Your task to perform on an android device: Go to display settings Image 0: 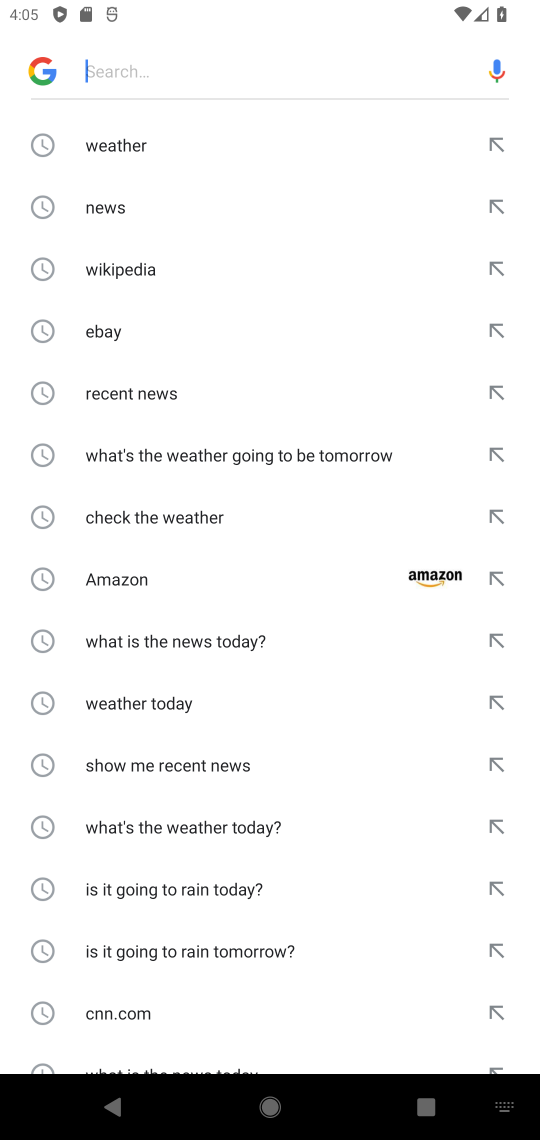
Step 0: press home button
Your task to perform on an android device: Go to display settings Image 1: 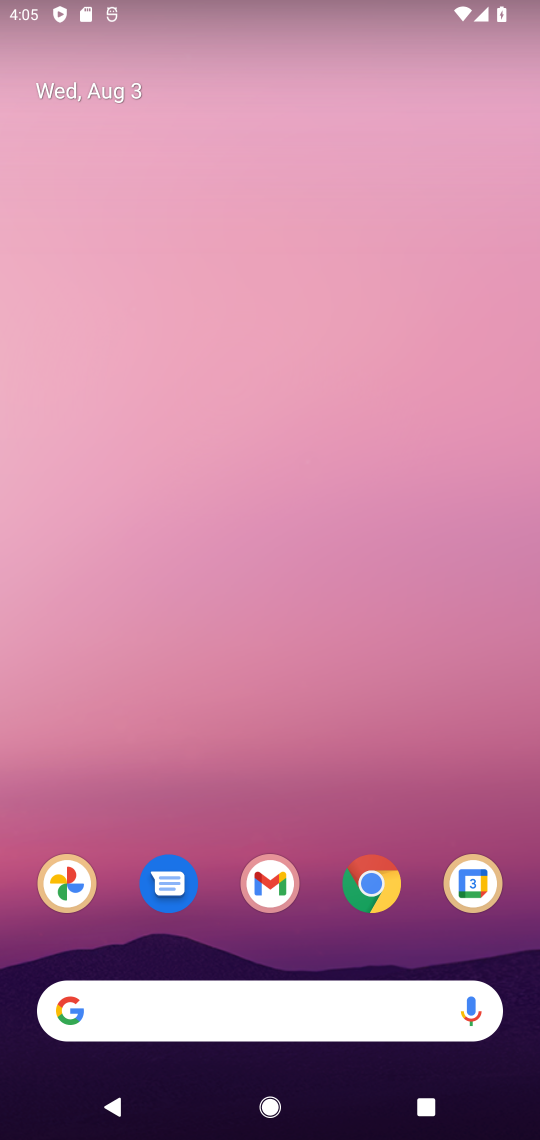
Step 1: drag from (224, 942) to (392, 9)
Your task to perform on an android device: Go to display settings Image 2: 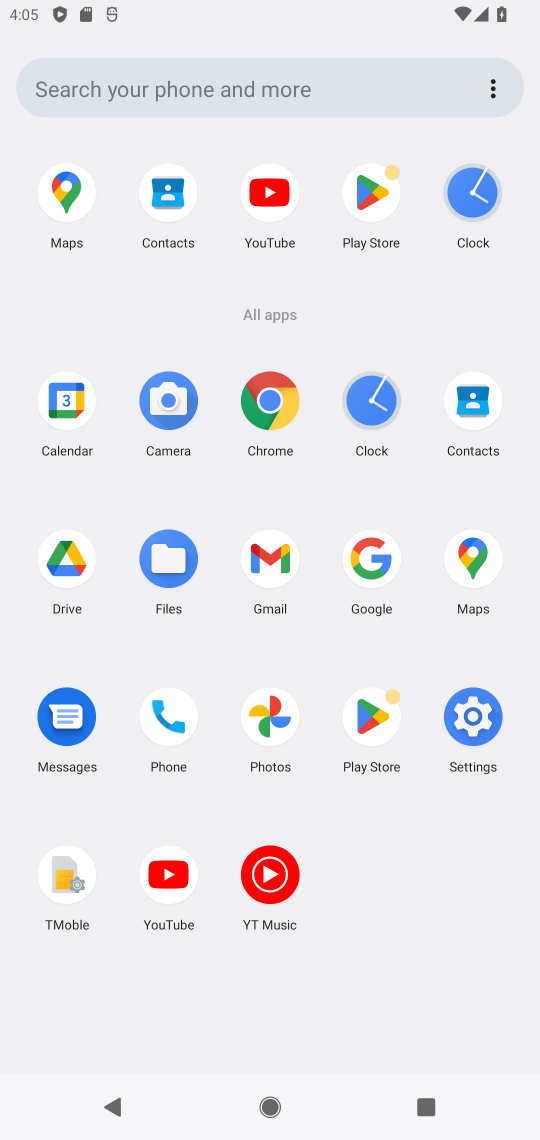
Step 2: click (466, 731)
Your task to perform on an android device: Go to display settings Image 3: 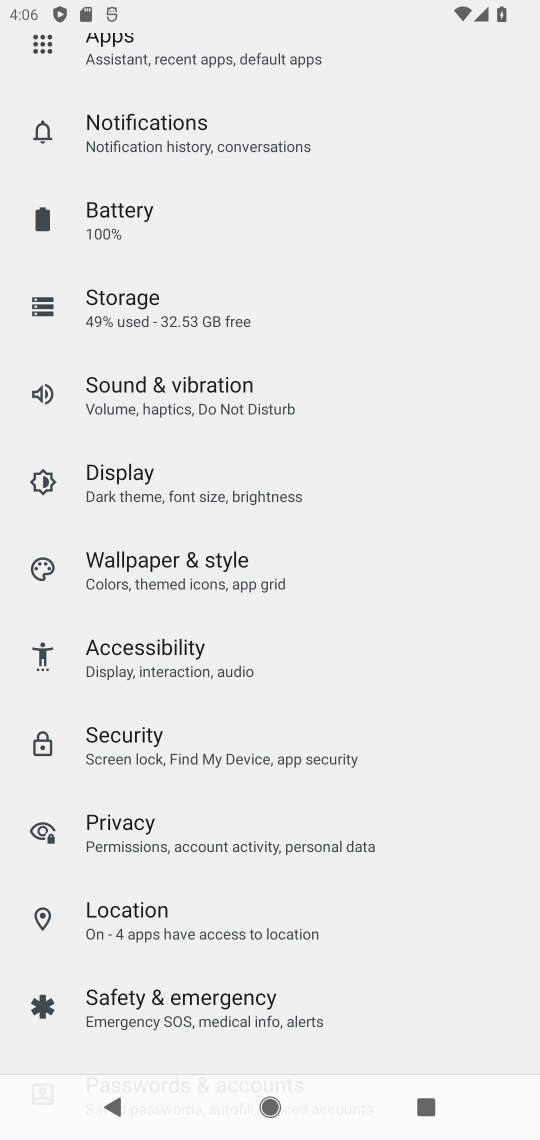
Step 3: click (154, 487)
Your task to perform on an android device: Go to display settings Image 4: 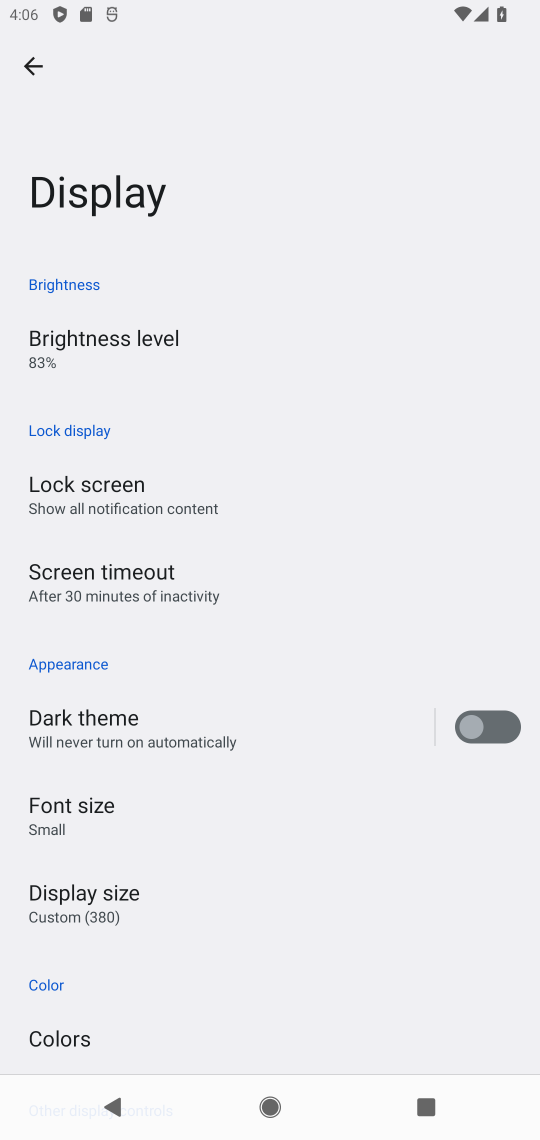
Step 4: task complete